Your task to perform on an android device: Open the calendar app, open the side menu, and click the "Day" option Image 0: 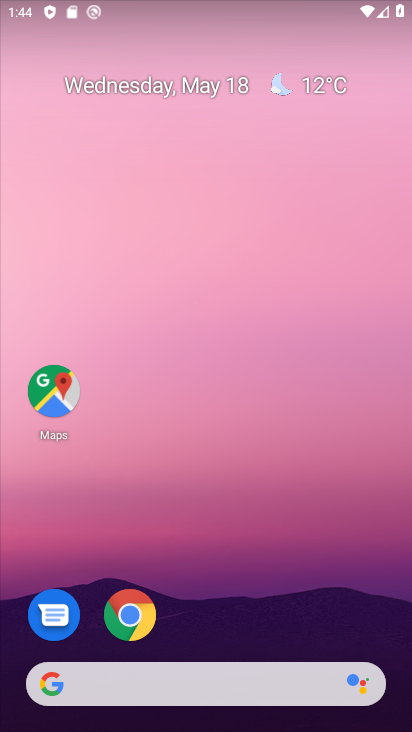
Step 0: drag from (328, 631) to (279, 65)
Your task to perform on an android device: Open the calendar app, open the side menu, and click the "Day" option Image 1: 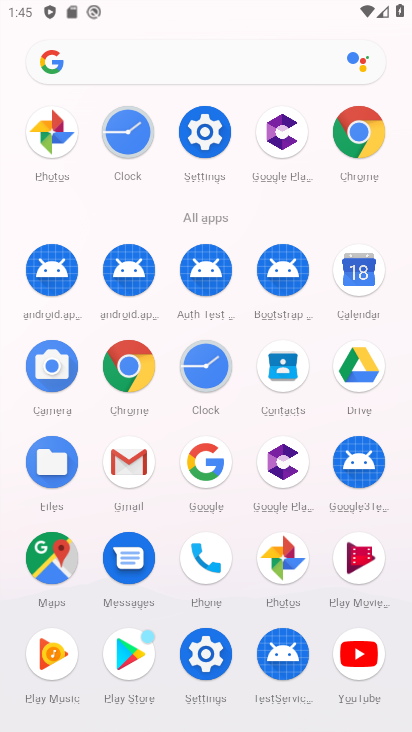
Step 1: click (351, 268)
Your task to perform on an android device: Open the calendar app, open the side menu, and click the "Day" option Image 2: 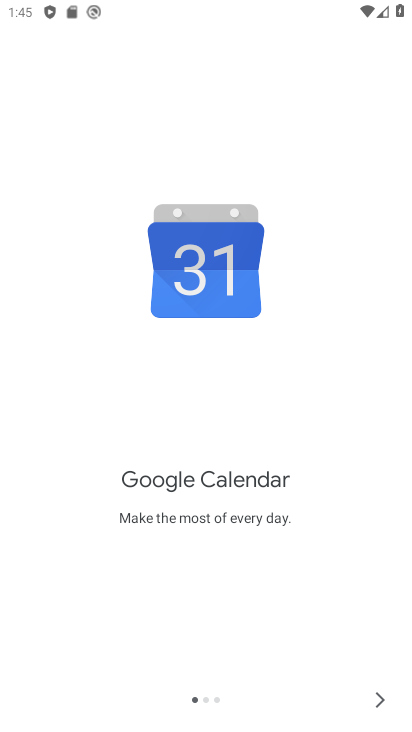
Step 2: click (387, 703)
Your task to perform on an android device: Open the calendar app, open the side menu, and click the "Day" option Image 3: 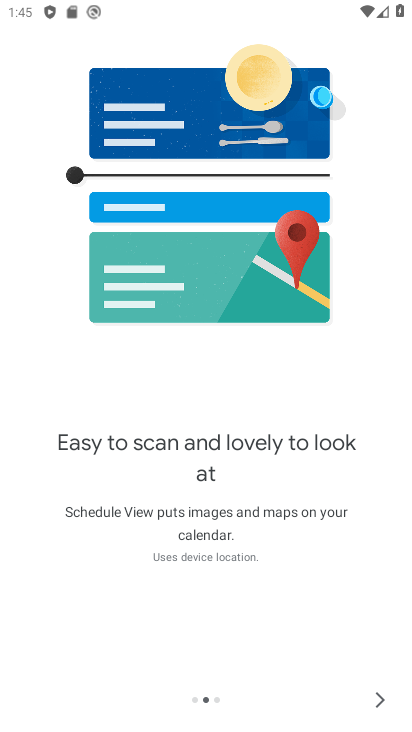
Step 3: click (387, 703)
Your task to perform on an android device: Open the calendar app, open the side menu, and click the "Day" option Image 4: 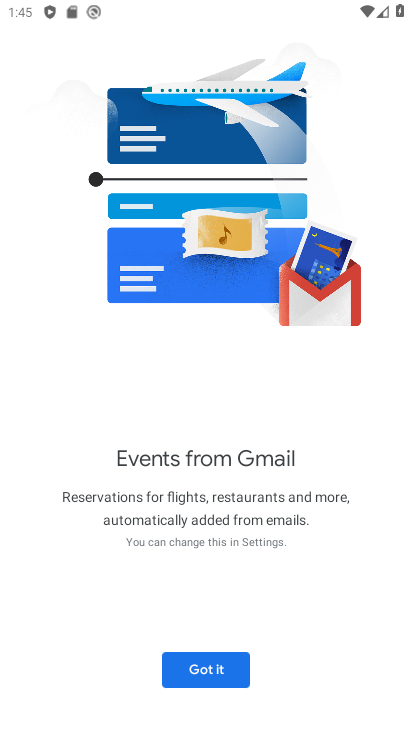
Step 4: click (387, 703)
Your task to perform on an android device: Open the calendar app, open the side menu, and click the "Day" option Image 5: 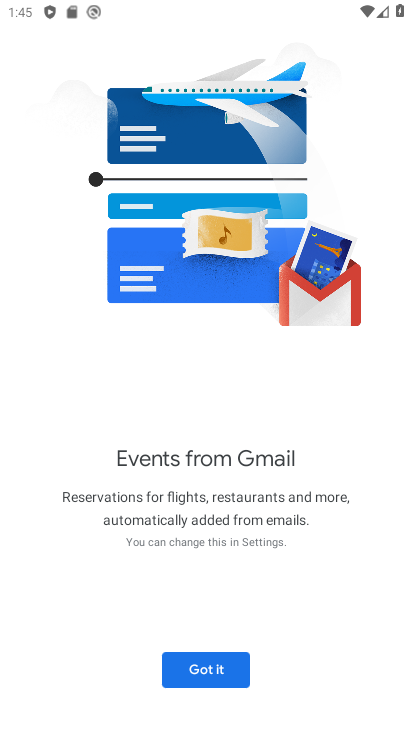
Step 5: click (236, 669)
Your task to perform on an android device: Open the calendar app, open the side menu, and click the "Day" option Image 6: 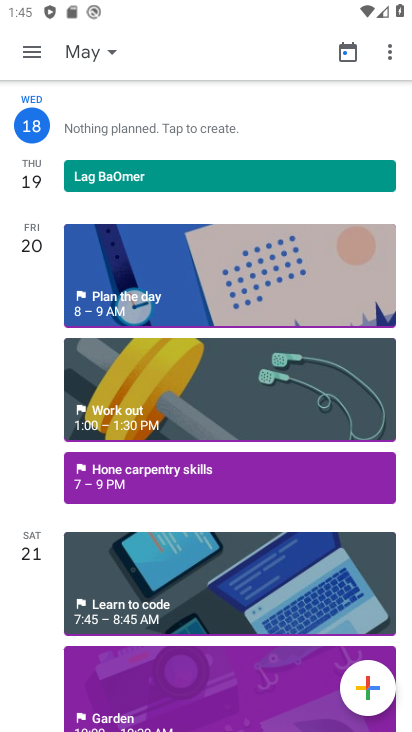
Step 6: click (25, 42)
Your task to perform on an android device: Open the calendar app, open the side menu, and click the "Day" option Image 7: 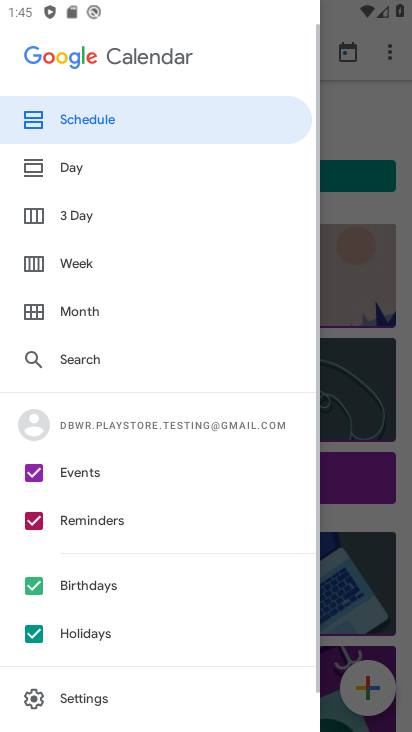
Step 7: click (170, 184)
Your task to perform on an android device: Open the calendar app, open the side menu, and click the "Day" option Image 8: 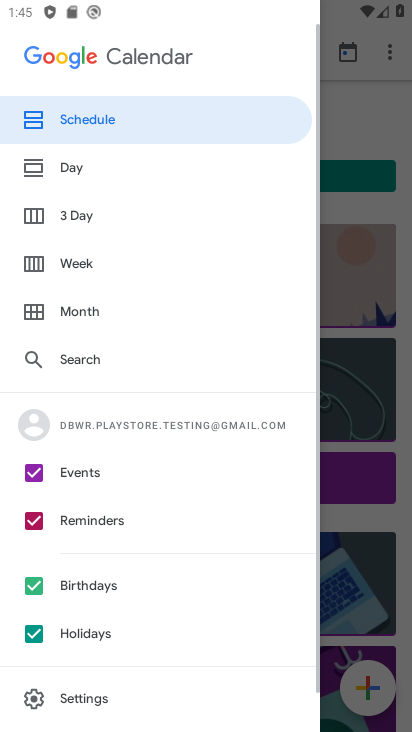
Step 8: click (110, 167)
Your task to perform on an android device: Open the calendar app, open the side menu, and click the "Day" option Image 9: 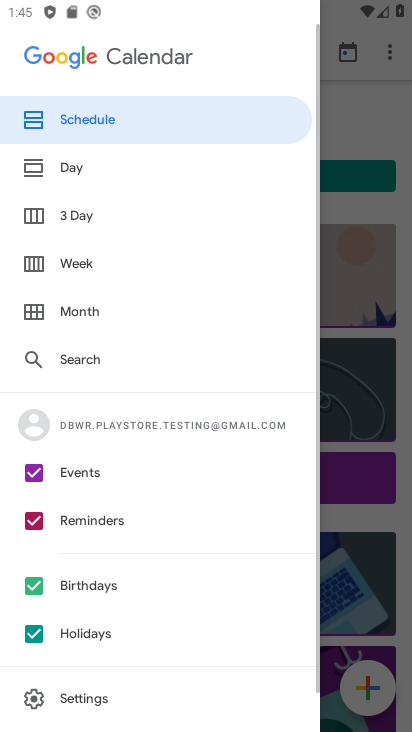
Step 9: click (108, 166)
Your task to perform on an android device: Open the calendar app, open the side menu, and click the "Day" option Image 10: 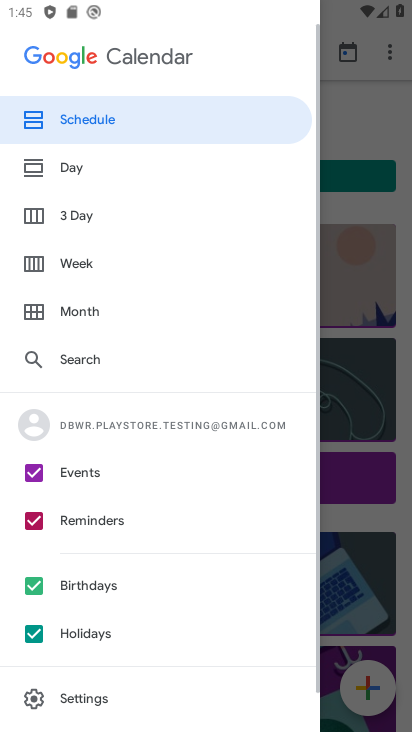
Step 10: click (108, 166)
Your task to perform on an android device: Open the calendar app, open the side menu, and click the "Day" option Image 11: 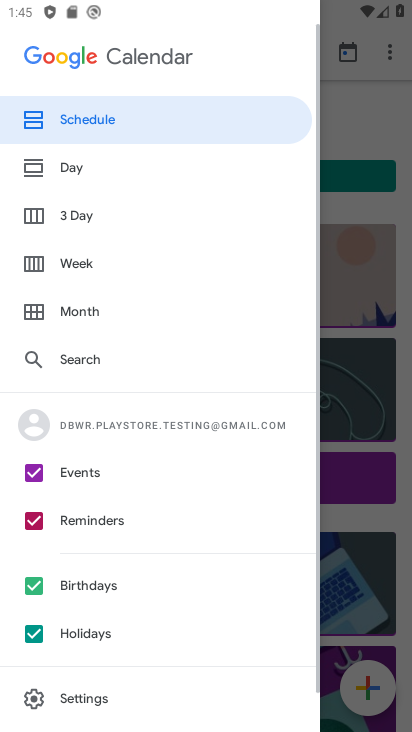
Step 11: click (108, 166)
Your task to perform on an android device: Open the calendar app, open the side menu, and click the "Day" option Image 12: 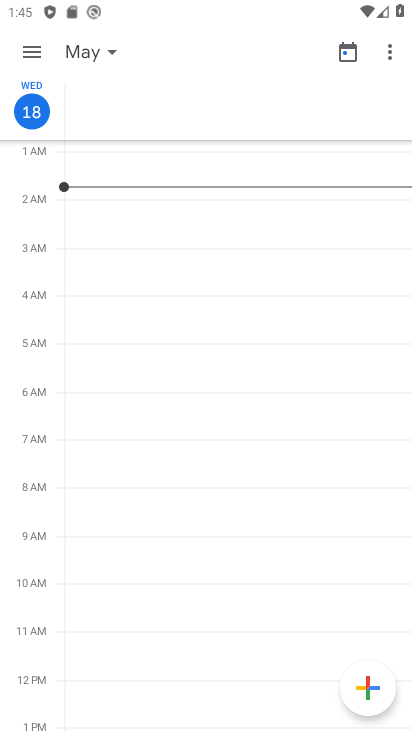
Step 12: task complete